Your task to perform on an android device: turn off wifi Image 0: 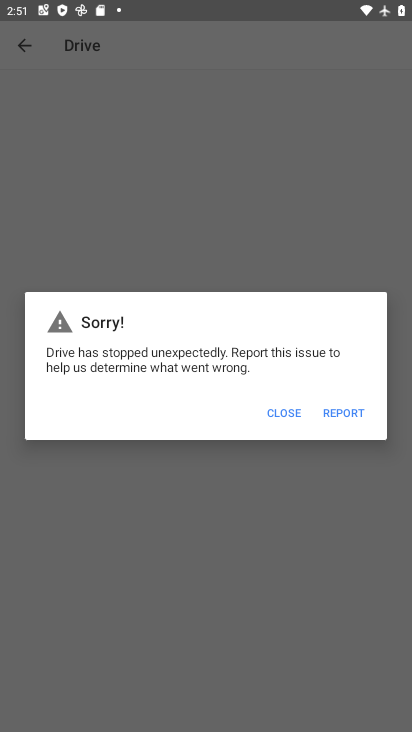
Step 0: press home button
Your task to perform on an android device: turn off wifi Image 1: 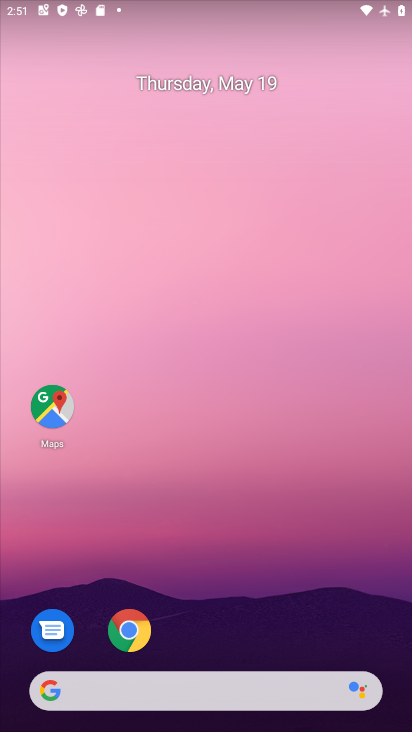
Step 1: drag from (390, 629) to (320, 119)
Your task to perform on an android device: turn off wifi Image 2: 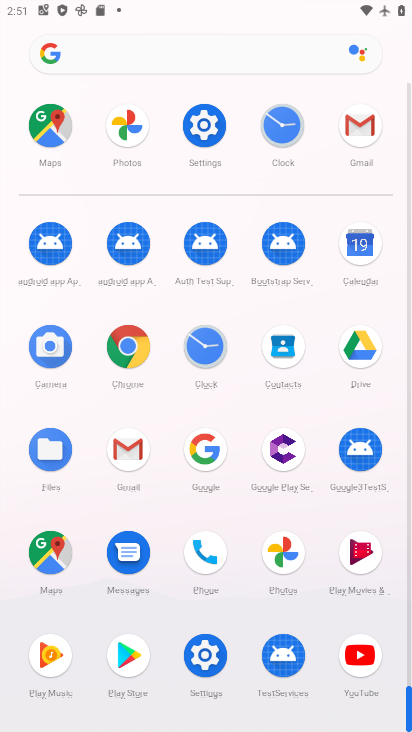
Step 2: click (206, 653)
Your task to perform on an android device: turn off wifi Image 3: 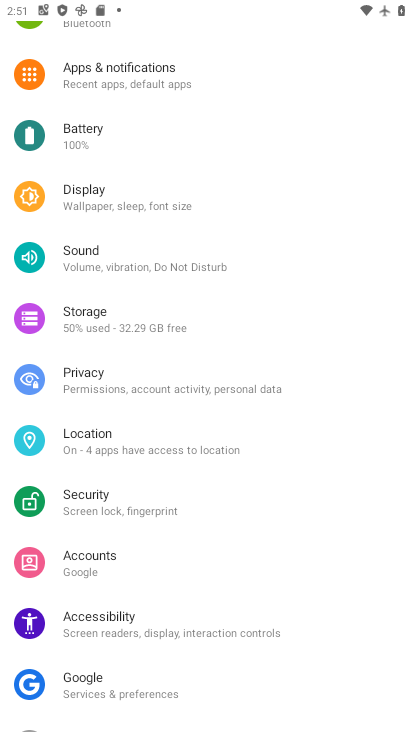
Step 3: drag from (281, 94) to (319, 466)
Your task to perform on an android device: turn off wifi Image 4: 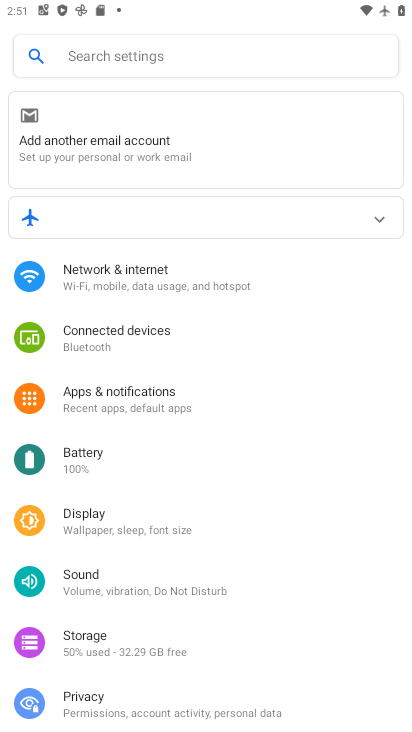
Step 4: click (101, 276)
Your task to perform on an android device: turn off wifi Image 5: 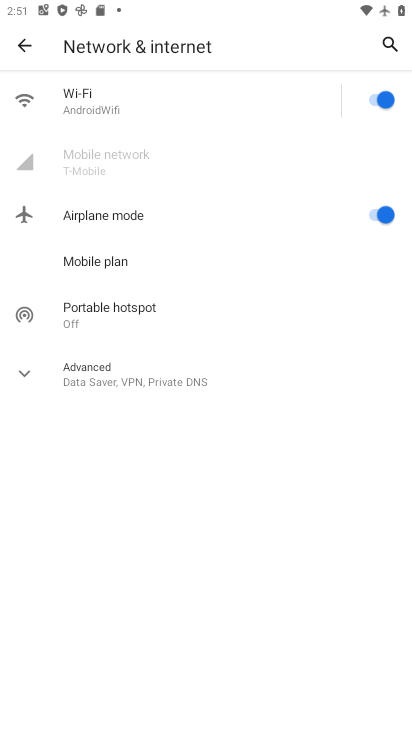
Step 5: click (368, 95)
Your task to perform on an android device: turn off wifi Image 6: 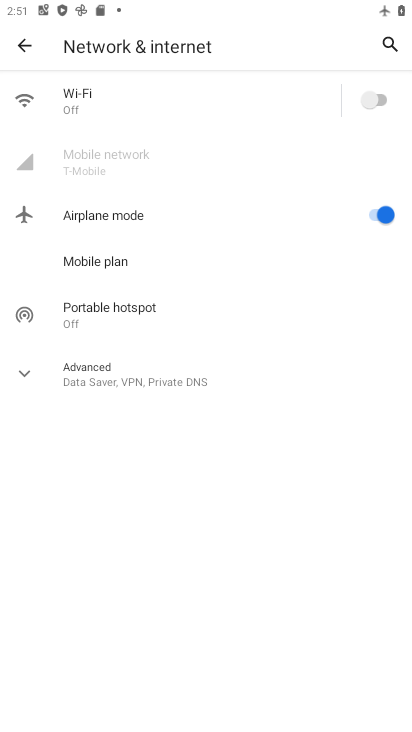
Step 6: task complete